Your task to perform on an android device: See recent photos Image 0: 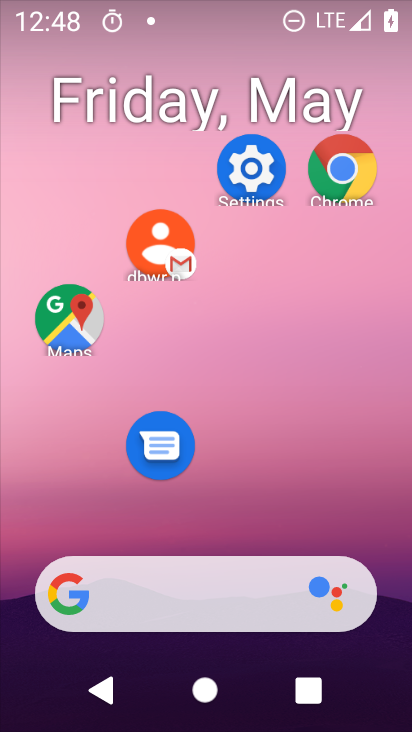
Step 0: drag from (228, 531) to (223, 59)
Your task to perform on an android device: See recent photos Image 1: 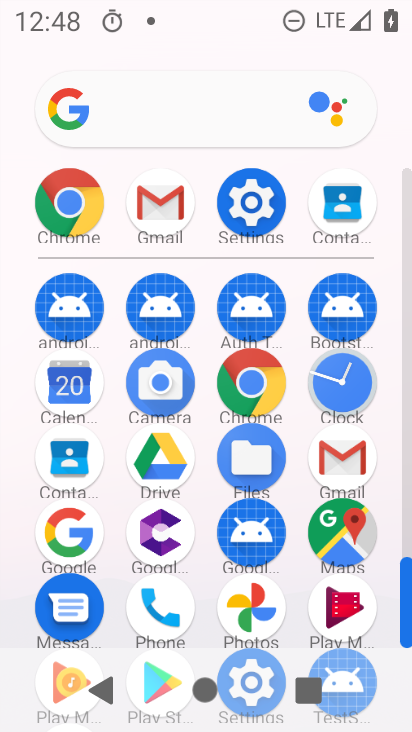
Step 1: drag from (197, 639) to (197, 212)
Your task to perform on an android device: See recent photos Image 2: 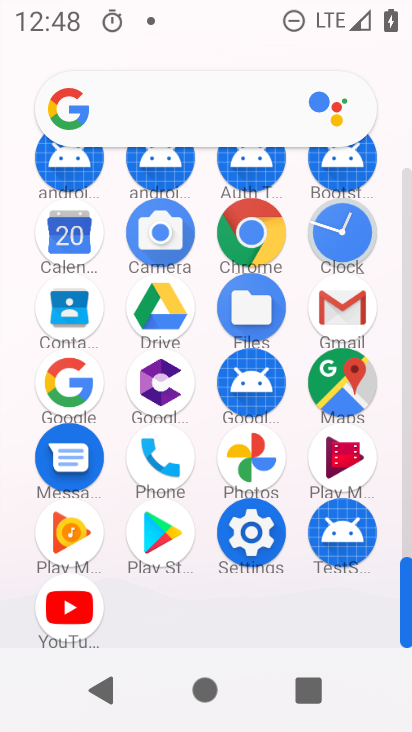
Step 2: click (235, 480)
Your task to perform on an android device: See recent photos Image 3: 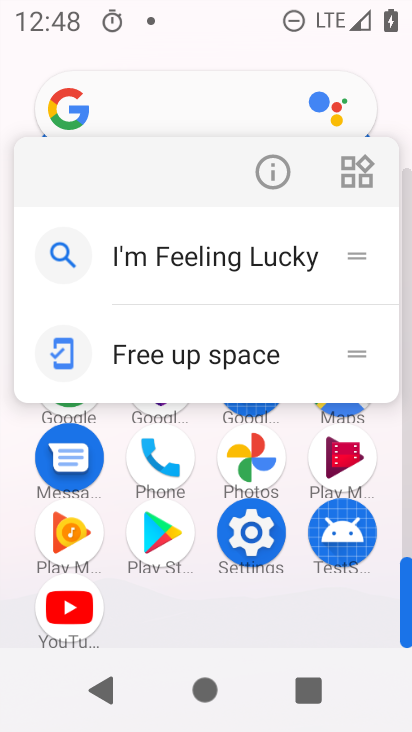
Step 3: click (275, 191)
Your task to perform on an android device: See recent photos Image 4: 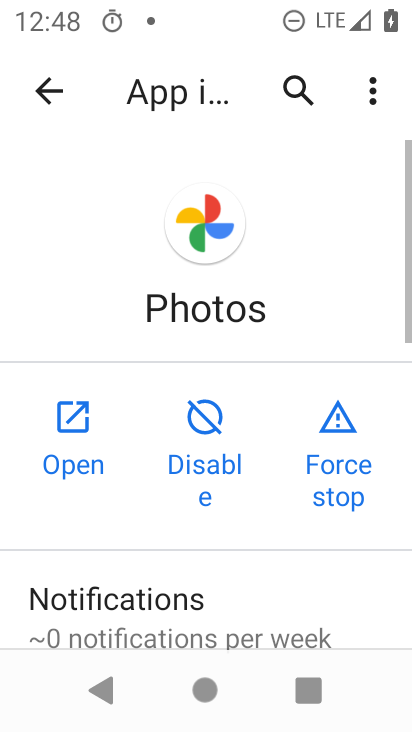
Step 4: click (64, 415)
Your task to perform on an android device: See recent photos Image 5: 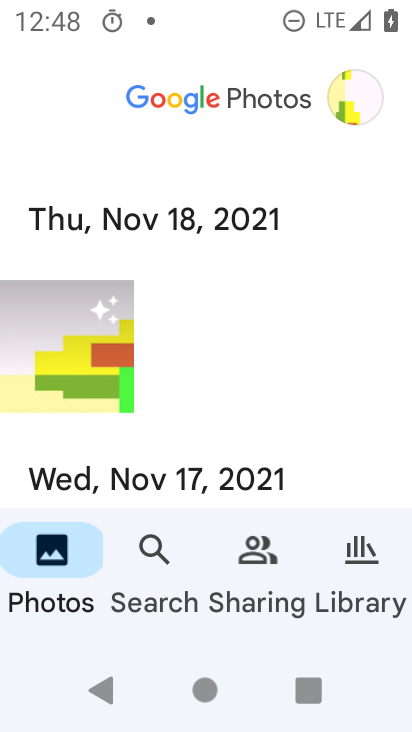
Step 5: click (132, 551)
Your task to perform on an android device: See recent photos Image 6: 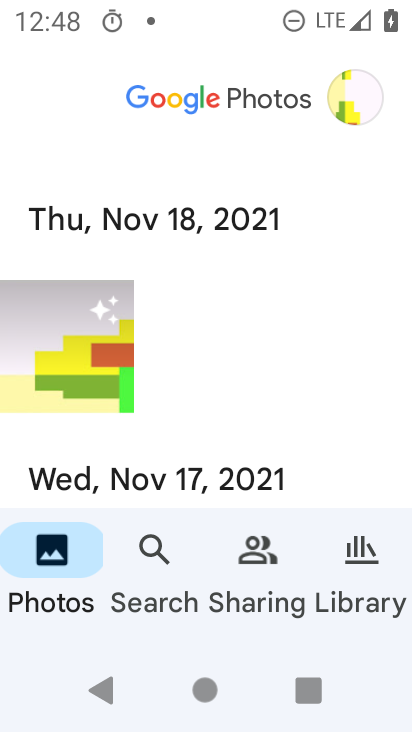
Step 6: click (46, 548)
Your task to perform on an android device: See recent photos Image 7: 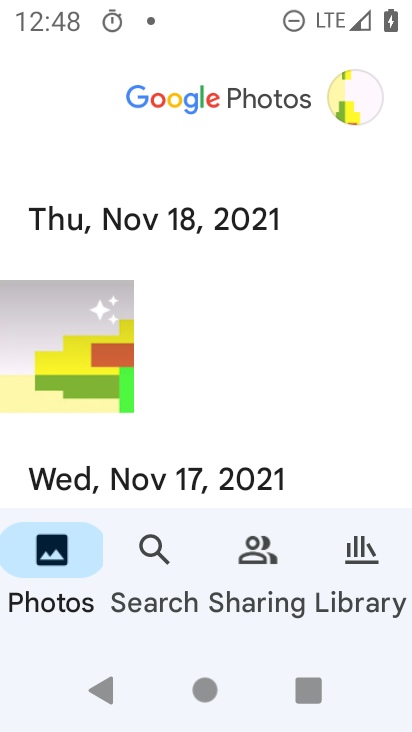
Step 7: click (93, 356)
Your task to perform on an android device: See recent photos Image 8: 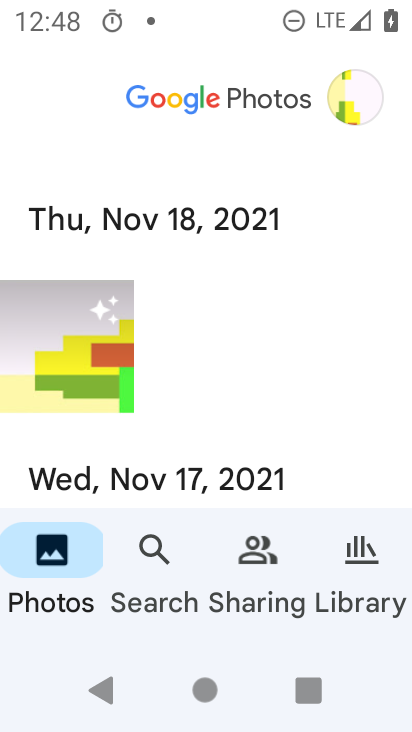
Step 8: click (93, 356)
Your task to perform on an android device: See recent photos Image 9: 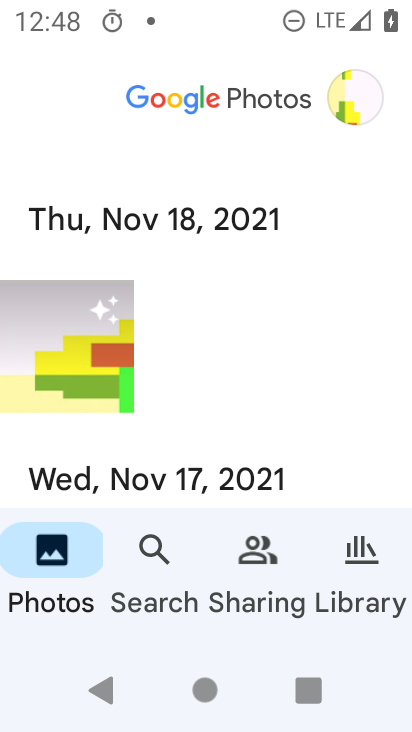
Step 9: drag from (237, 450) to (250, 205)
Your task to perform on an android device: See recent photos Image 10: 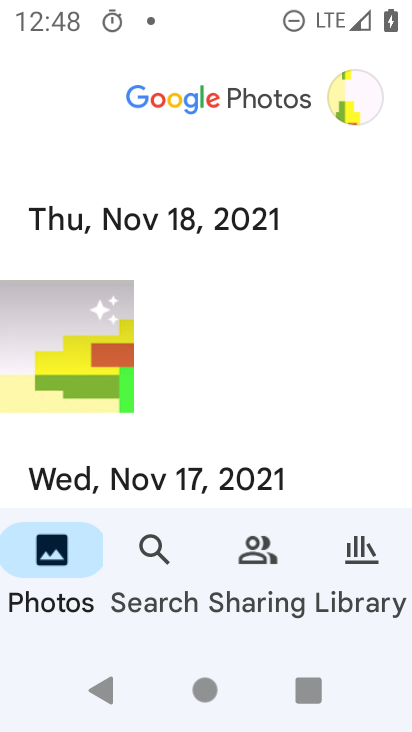
Step 10: click (253, 349)
Your task to perform on an android device: See recent photos Image 11: 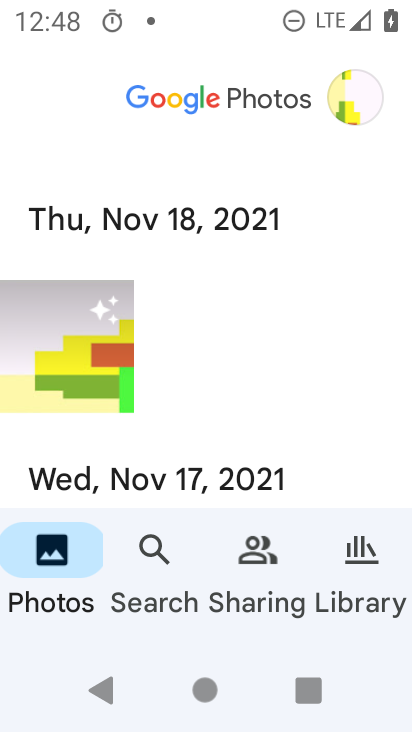
Step 11: drag from (275, 515) to (303, 182)
Your task to perform on an android device: See recent photos Image 12: 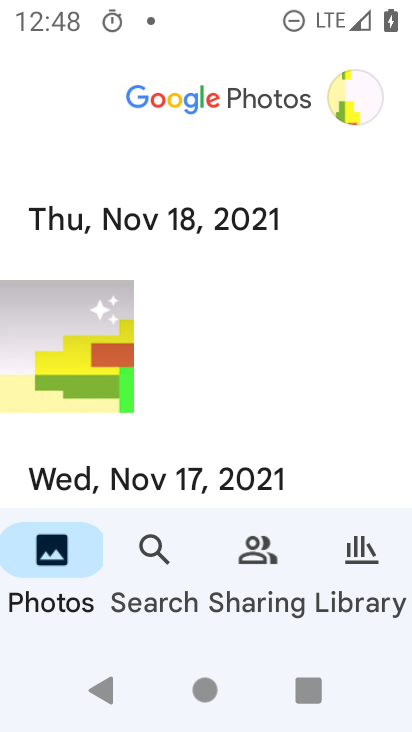
Step 12: click (38, 414)
Your task to perform on an android device: See recent photos Image 13: 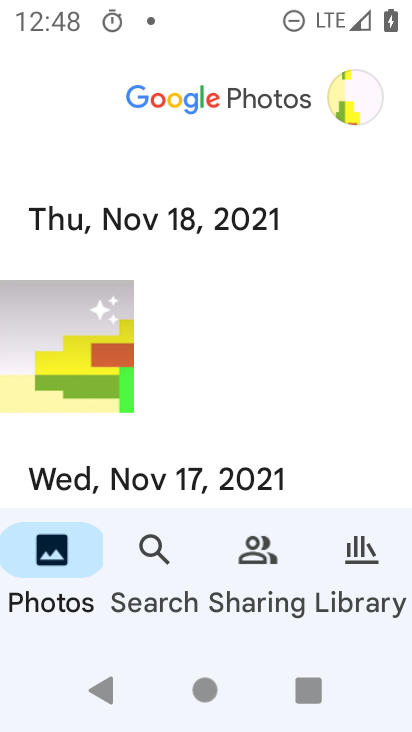
Step 13: click (51, 408)
Your task to perform on an android device: See recent photos Image 14: 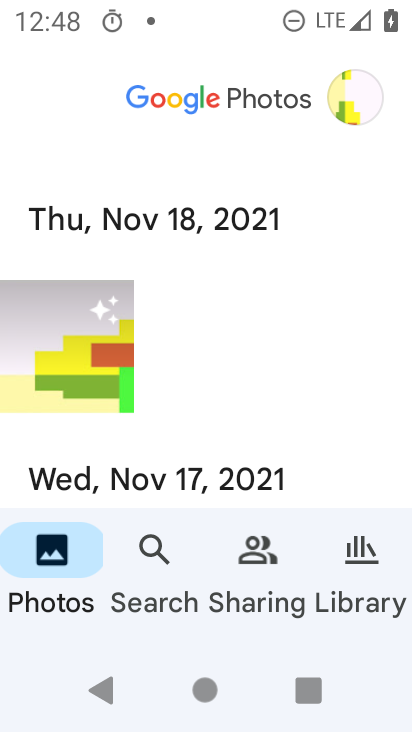
Step 14: click (56, 395)
Your task to perform on an android device: See recent photos Image 15: 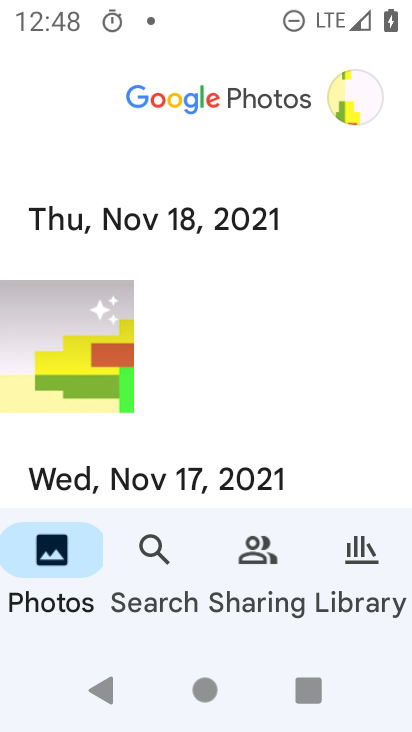
Step 15: click (55, 385)
Your task to perform on an android device: See recent photos Image 16: 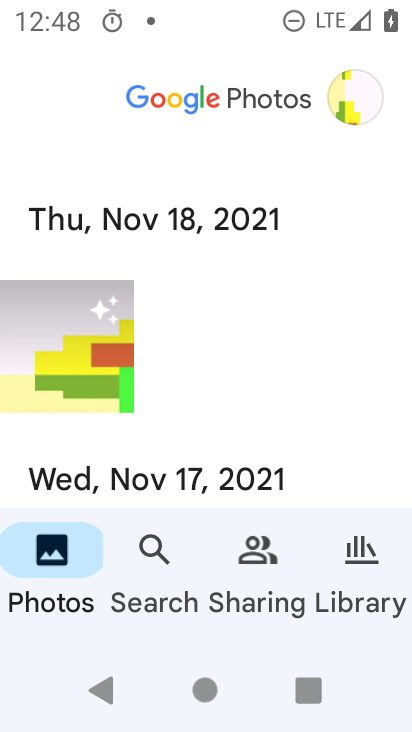
Step 16: click (281, 564)
Your task to perform on an android device: See recent photos Image 17: 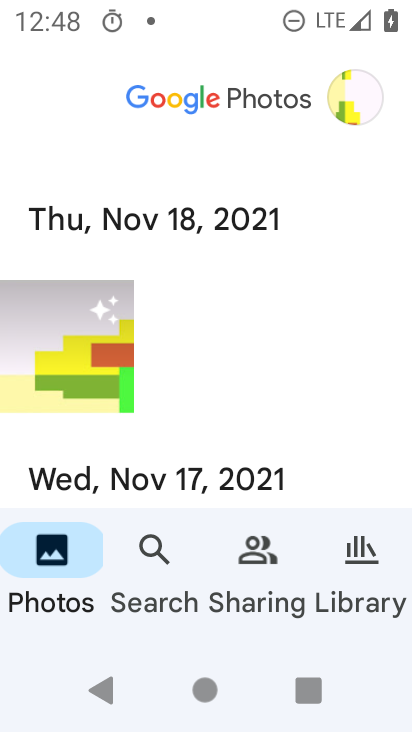
Step 17: click (141, 518)
Your task to perform on an android device: See recent photos Image 18: 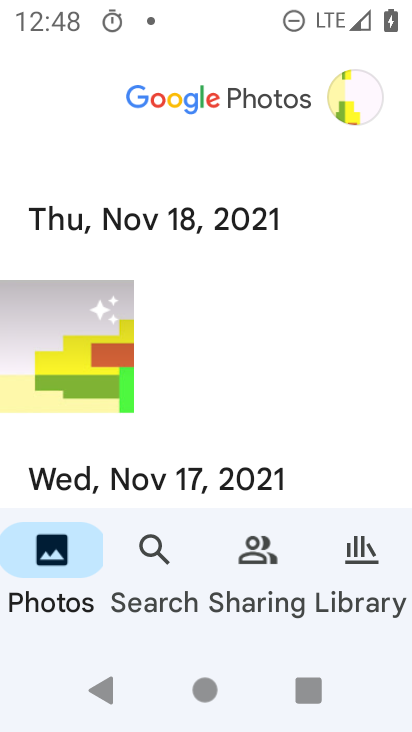
Step 18: task complete